Your task to perform on an android device: Go to Amazon Image 0: 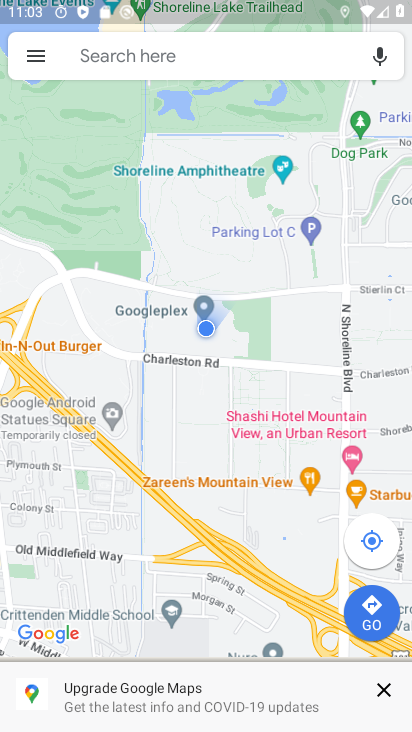
Step 0: press home button
Your task to perform on an android device: Go to Amazon Image 1: 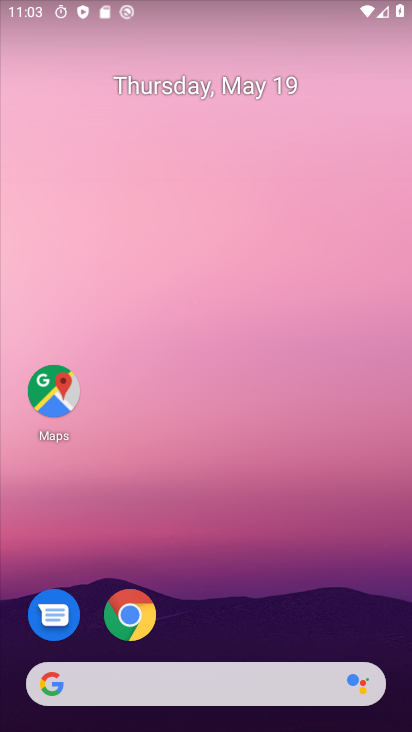
Step 1: click (120, 612)
Your task to perform on an android device: Go to Amazon Image 2: 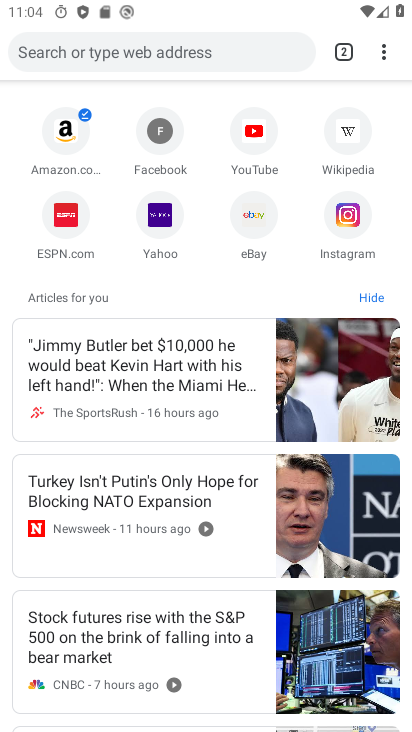
Step 2: click (75, 146)
Your task to perform on an android device: Go to Amazon Image 3: 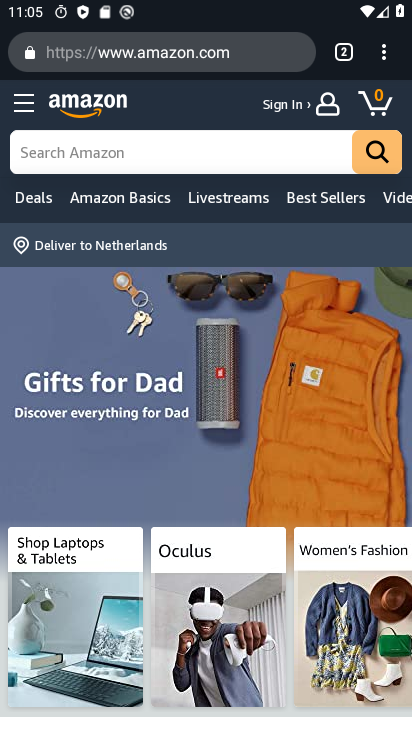
Step 3: task complete